Your task to perform on an android device: set the timer Image 0: 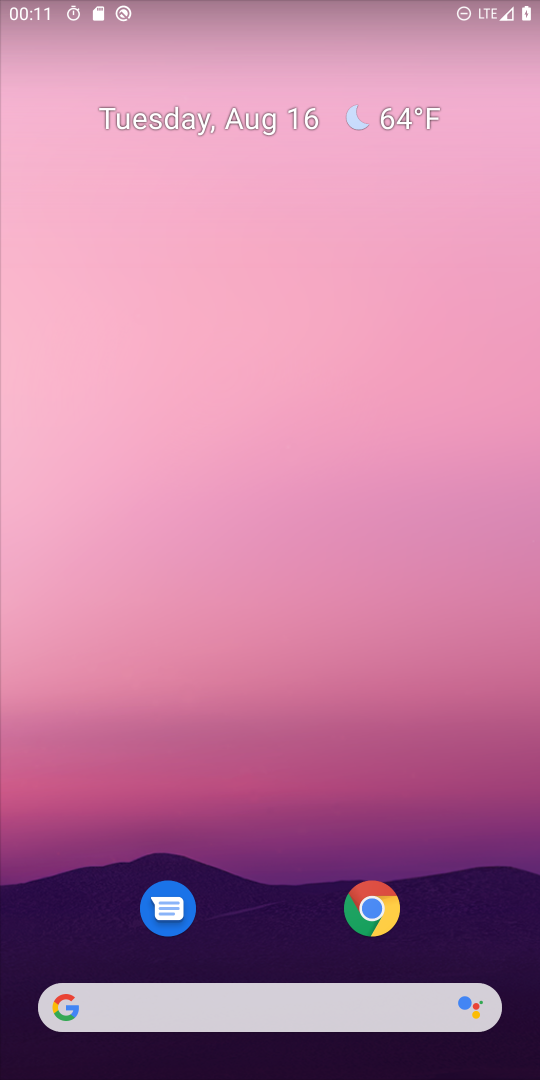
Step 0: drag from (249, 923) to (273, 403)
Your task to perform on an android device: set the timer Image 1: 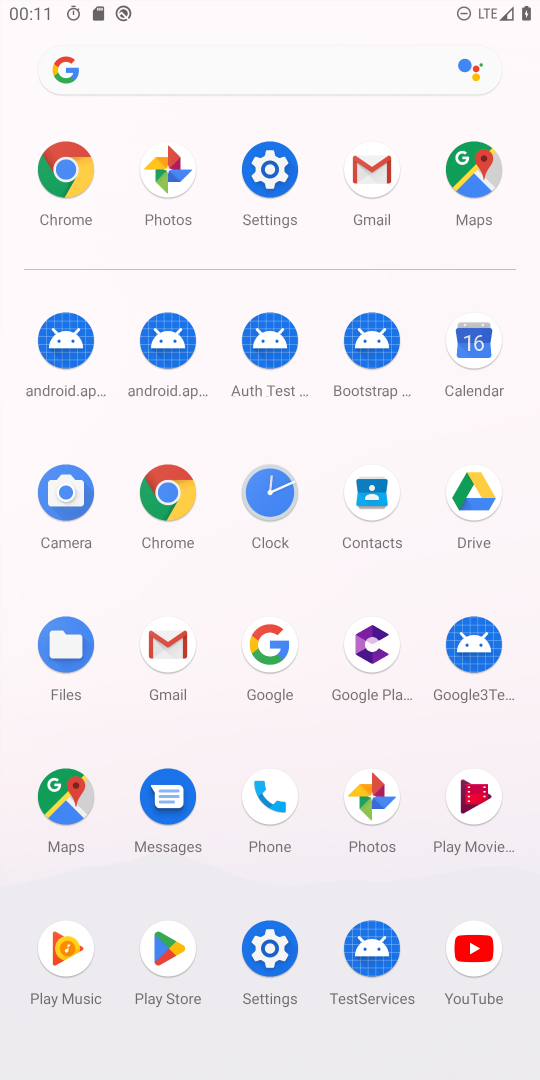
Step 1: click (267, 506)
Your task to perform on an android device: set the timer Image 2: 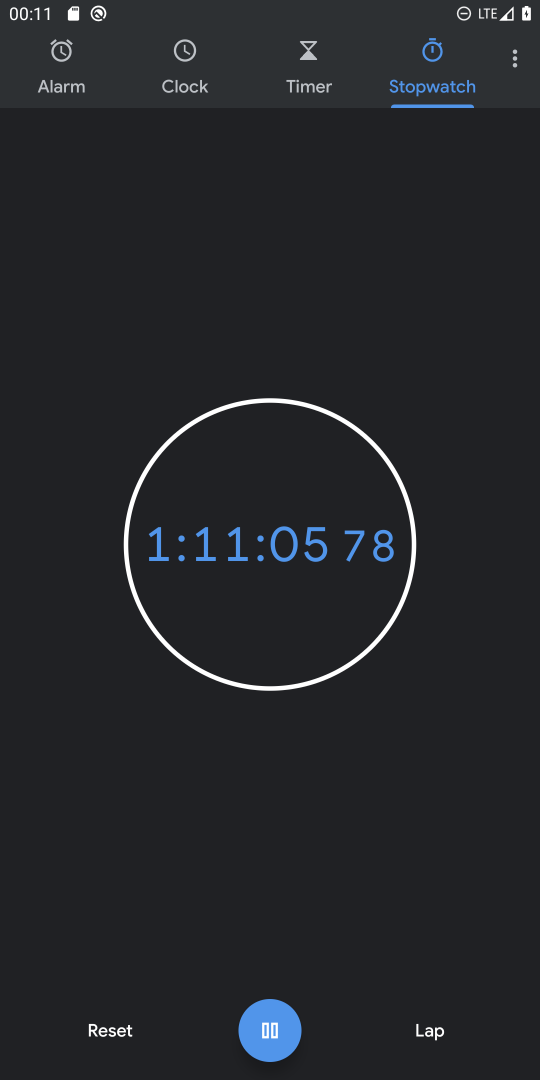
Step 2: click (56, 78)
Your task to perform on an android device: set the timer Image 3: 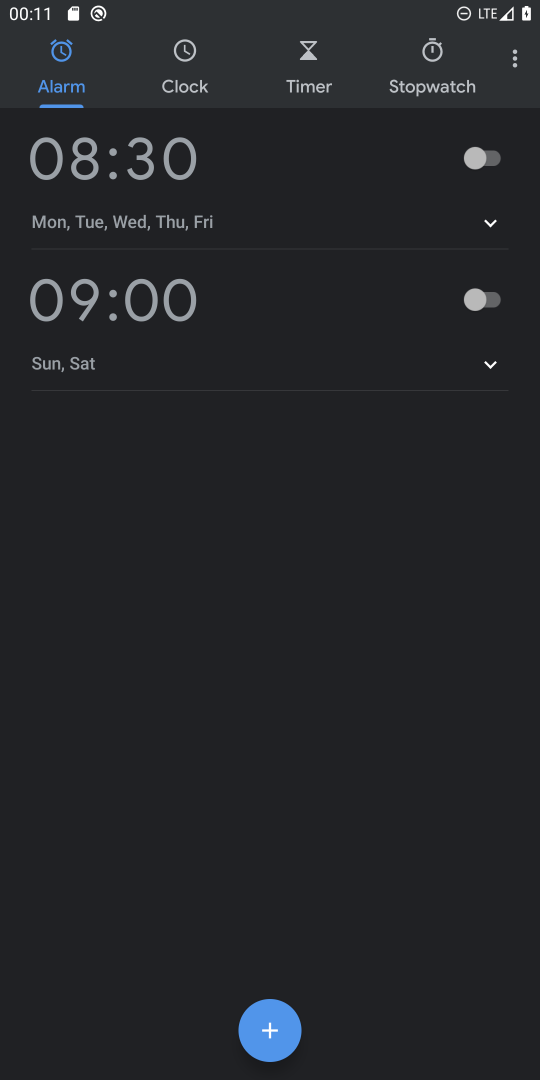
Step 3: click (478, 299)
Your task to perform on an android device: set the timer Image 4: 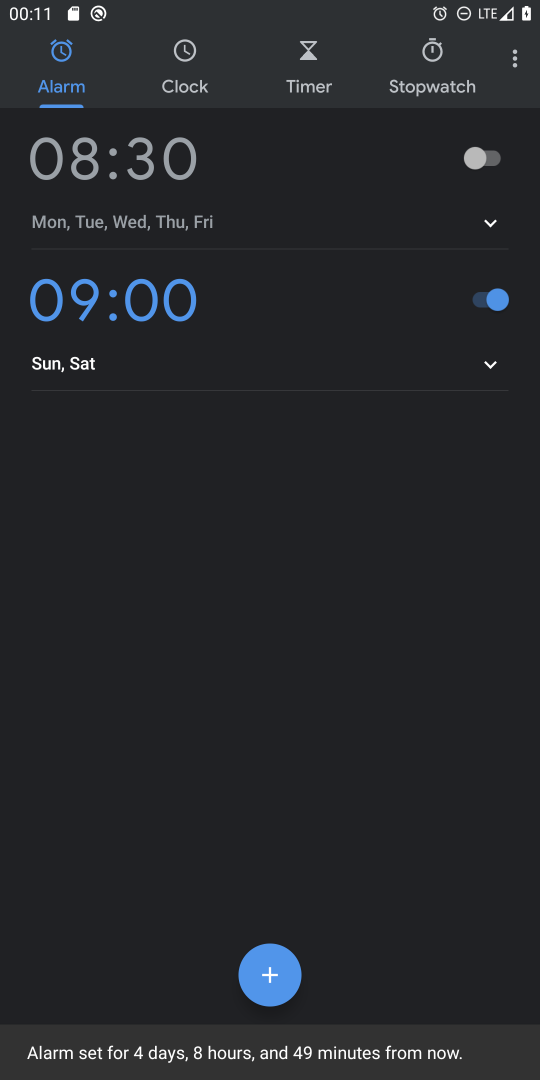
Step 4: task complete